Your task to perform on an android device: Search for sushi restaurants on Maps Image 0: 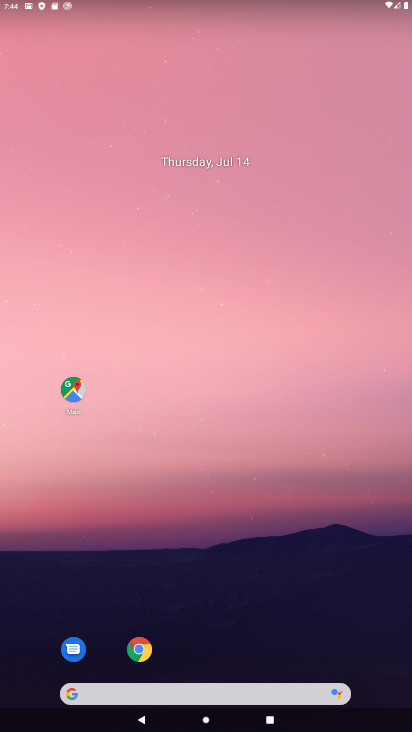
Step 0: press home button
Your task to perform on an android device: Search for sushi restaurants on Maps Image 1: 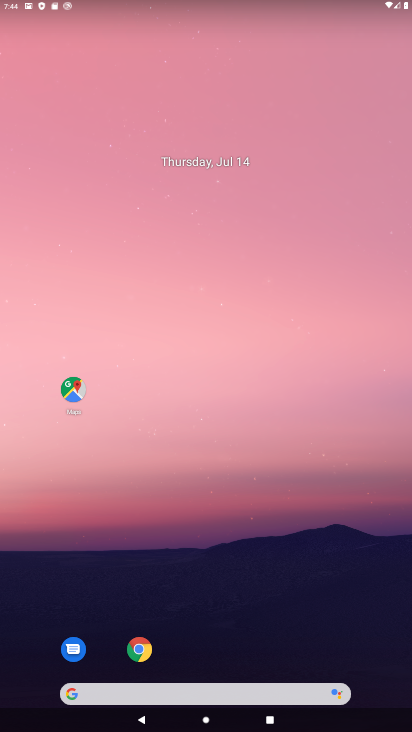
Step 1: drag from (215, 652) to (232, 111)
Your task to perform on an android device: Search for sushi restaurants on Maps Image 2: 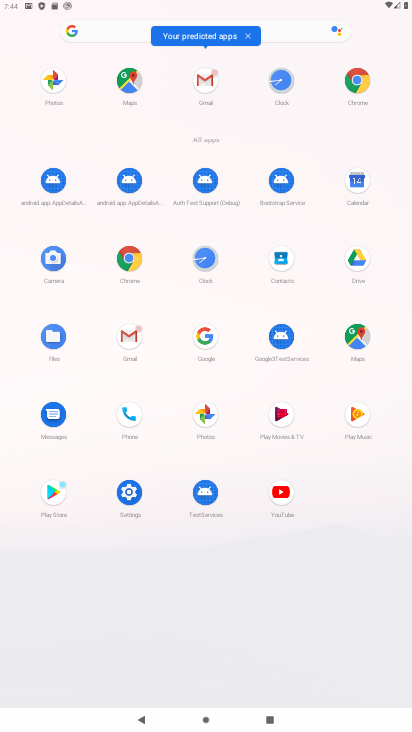
Step 2: click (354, 333)
Your task to perform on an android device: Search for sushi restaurants on Maps Image 3: 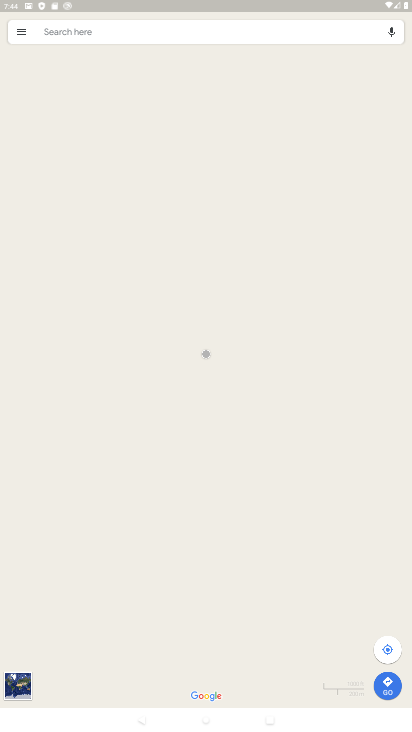
Step 3: click (75, 27)
Your task to perform on an android device: Search for sushi restaurants on Maps Image 4: 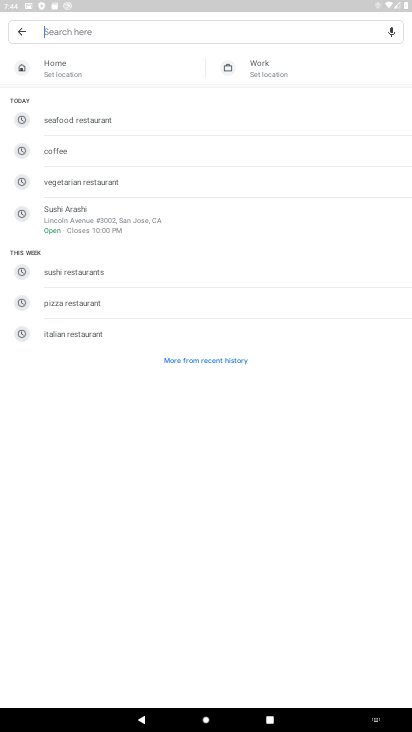
Step 4: type "sushi"
Your task to perform on an android device: Search for sushi restaurants on Maps Image 5: 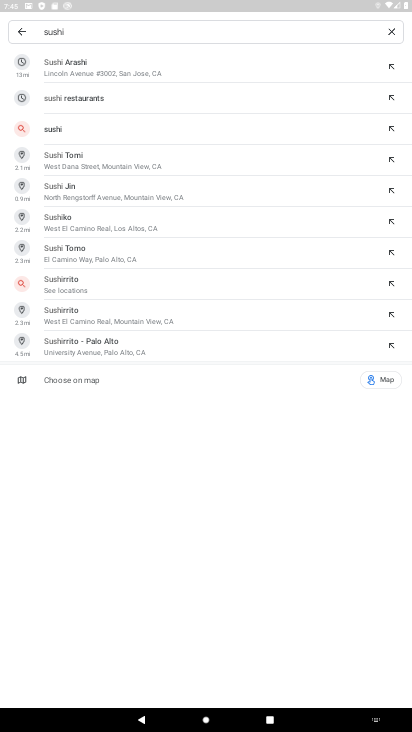
Step 5: click (89, 104)
Your task to perform on an android device: Search for sushi restaurants on Maps Image 6: 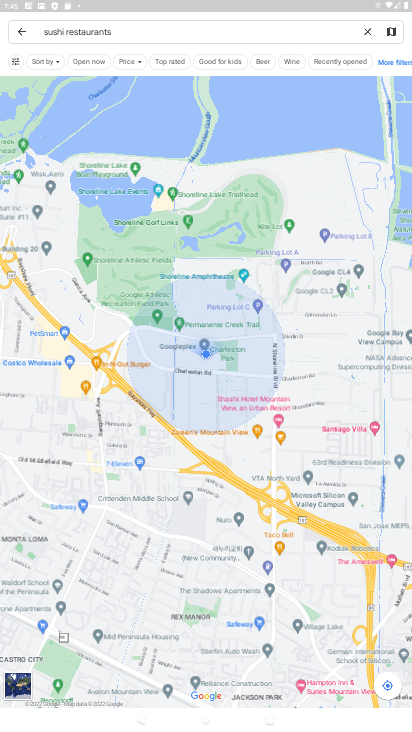
Step 6: task complete